Your task to perform on an android device: Go to eBay Image 0: 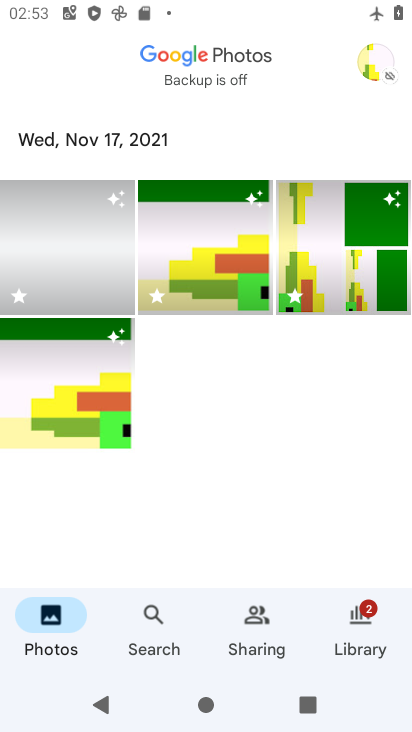
Step 0: press home button
Your task to perform on an android device: Go to eBay Image 1: 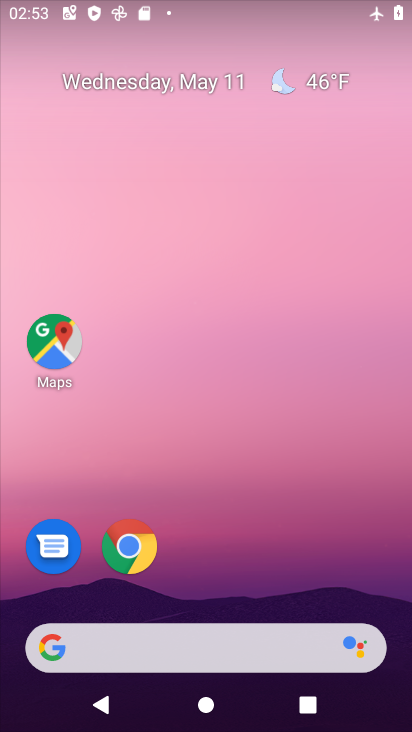
Step 1: drag from (205, 592) to (357, 165)
Your task to perform on an android device: Go to eBay Image 2: 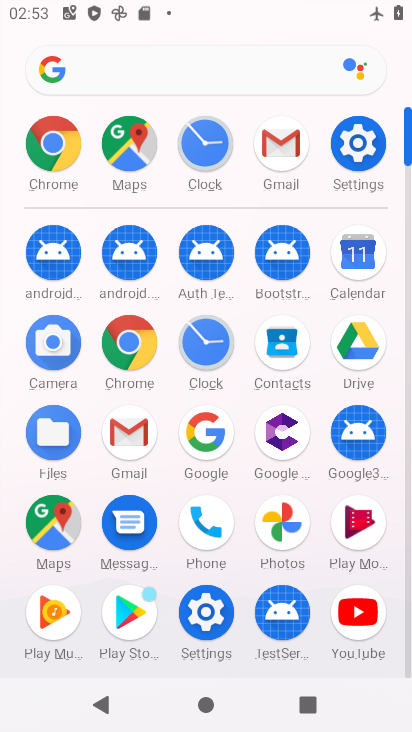
Step 2: click (190, 74)
Your task to perform on an android device: Go to eBay Image 3: 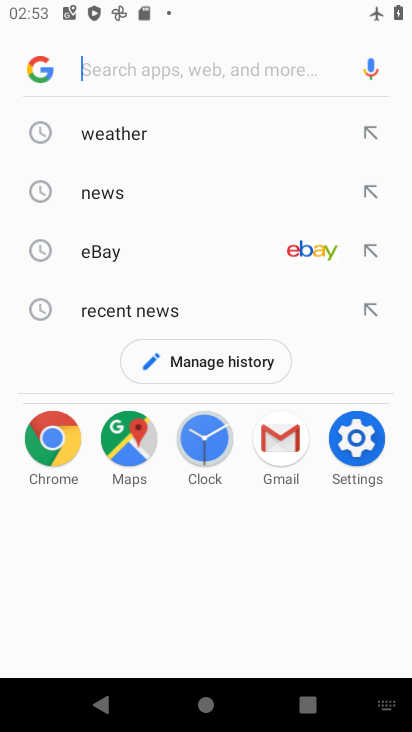
Step 3: click (154, 244)
Your task to perform on an android device: Go to eBay Image 4: 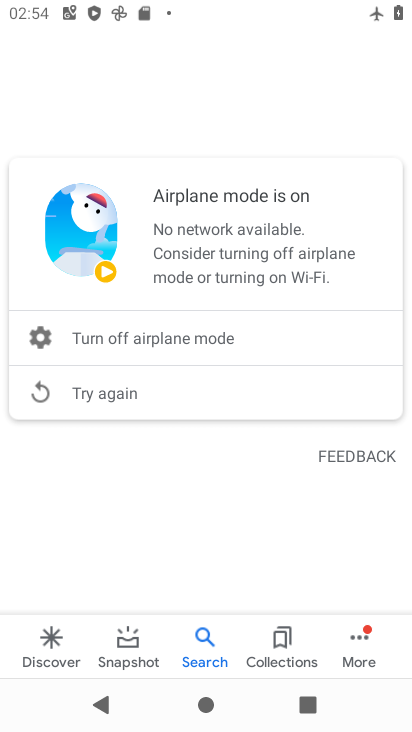
Step 4: task complete